Your task to perform on an android device: Show me recent news Image 0: 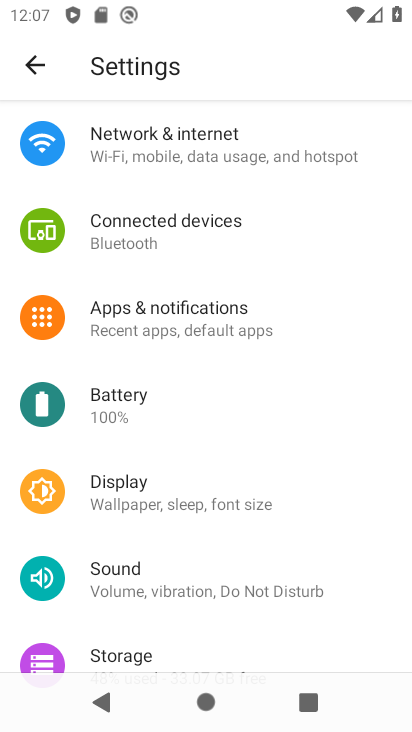
Step 0: press home button
Your task to perform on an android device: Show me recent news Image 1: 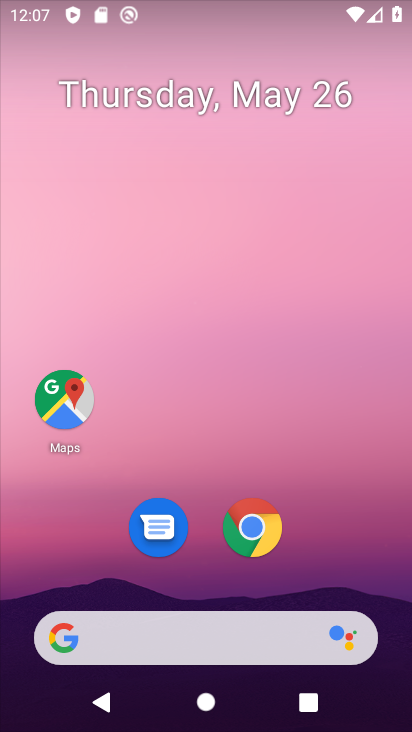
Step 1: click (171, 614)
Your task to perform on an android device: Show me recent news Image 2: 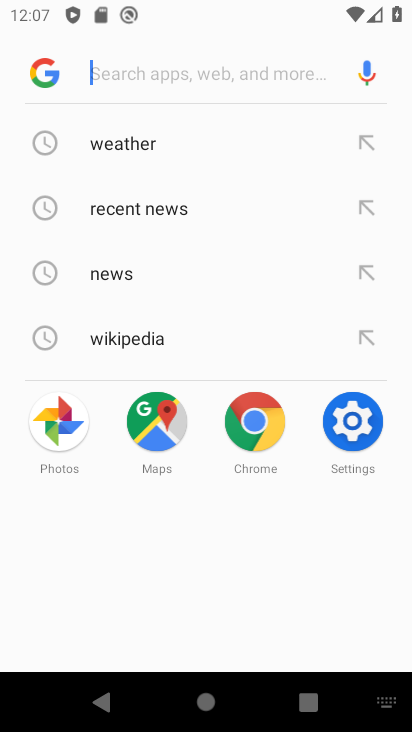
Step 2: click (187, 219)
Your task to perform on an android device: Show me recent news Image 3: 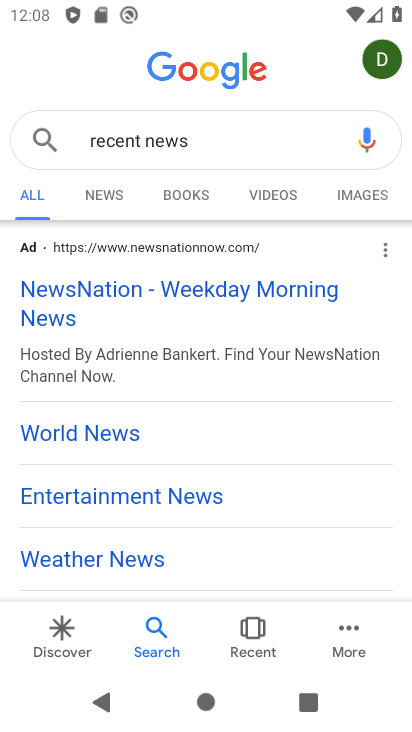
Step 3: task complete